Your task to perform on an android device: Open Chrome and go to the settings page Image 0: 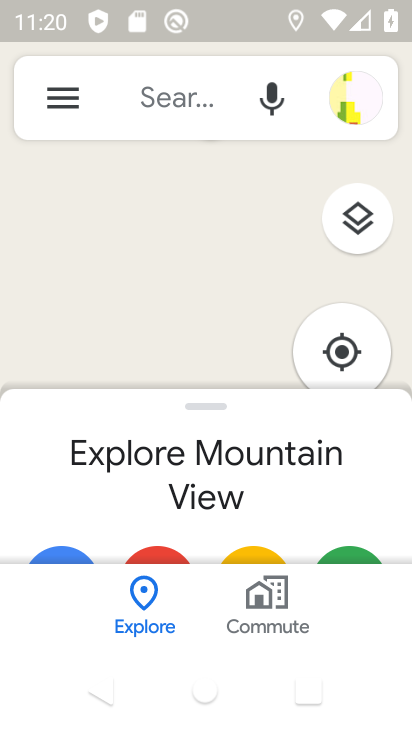
Step 0: press home button
Your task to perform on an android device: Open Chrome and go to the settings page Image 1: 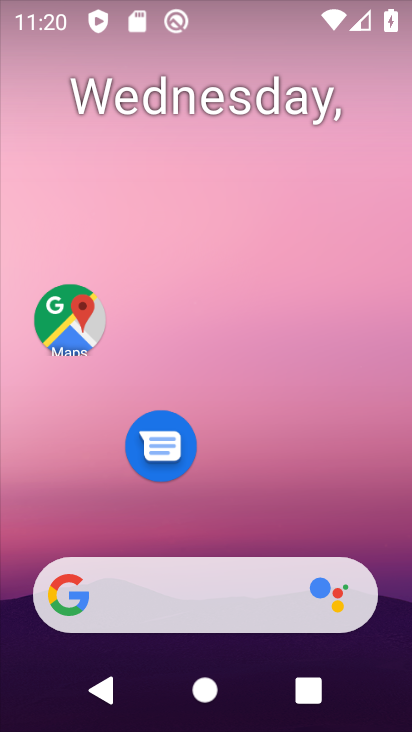
Step 1: drag from (220, 431) to (266, 74)
Your task to perform on an android device: Open Chrome and go to the settings page Image 2: 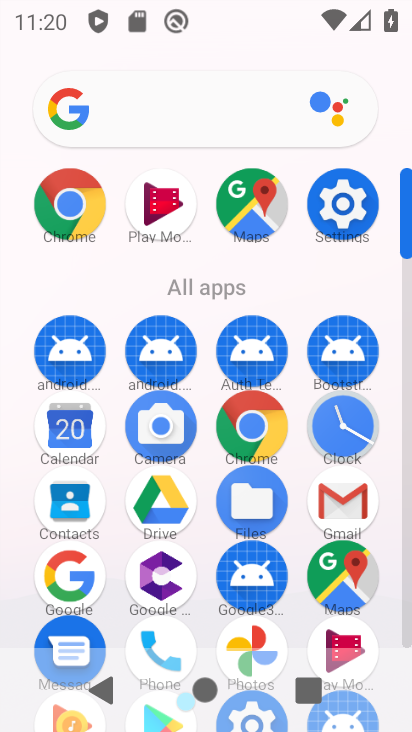
Step 2: click (253, 435)
Your task to perform on an android device: Open Chrome and go to the settings page Image 3: 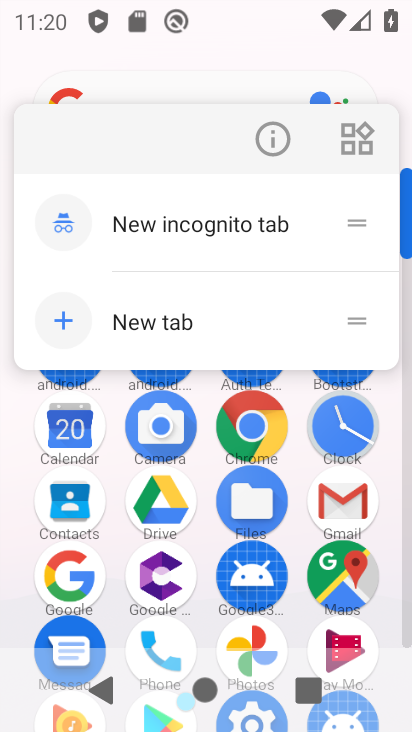
Step 3: click (253, 435)
Your task to perform on an android device: Open Chrome and go to the settings page Image 4: 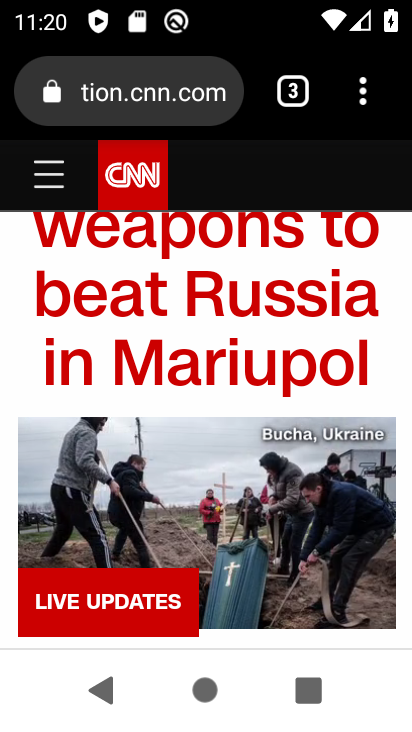
Step 4: task complete